Your task to perform on an android device: Open settings on Google Maps Image 0: 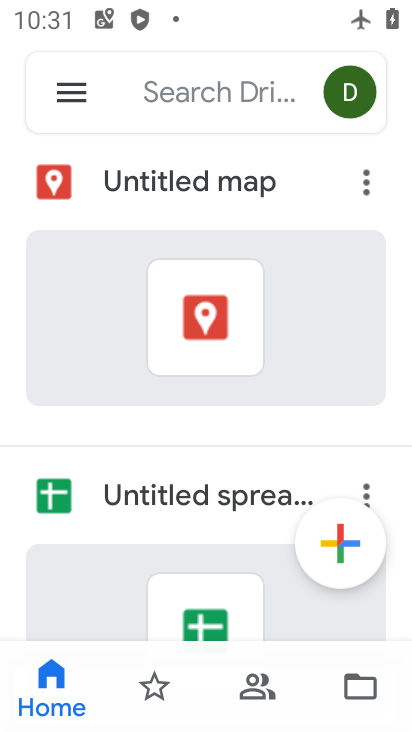
Step 0: press home button
Your task to perform on an android device: Open settings on Google Maps Image 1: 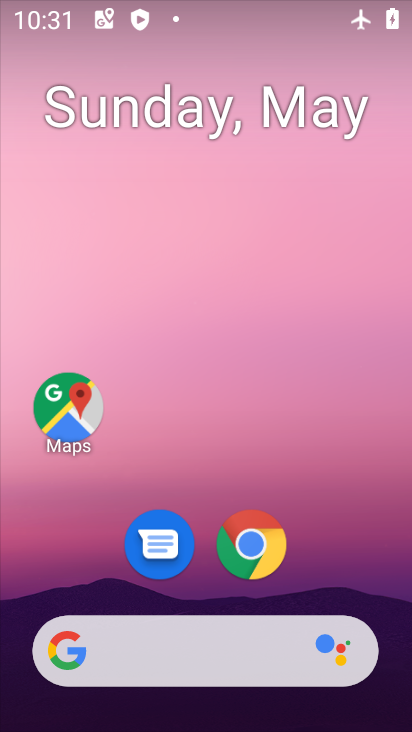
Step 1: click (52, 407)
Your task to perform on an android device: Open settings on Google Maps Image 2: 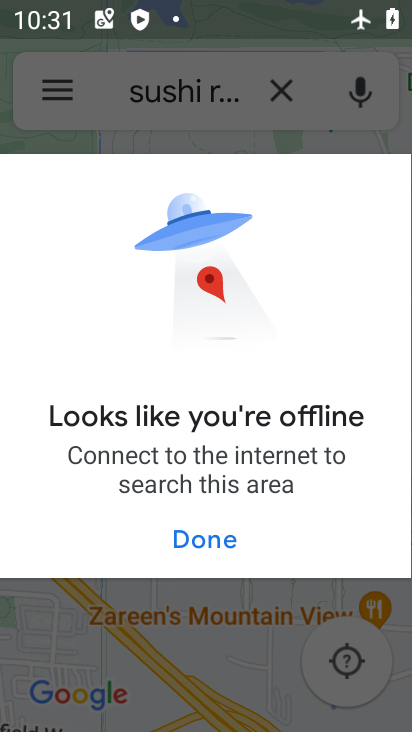
Step 2: click (213, 532)
Your task to perform on an android device: Open settings on Google Maps Image 3: 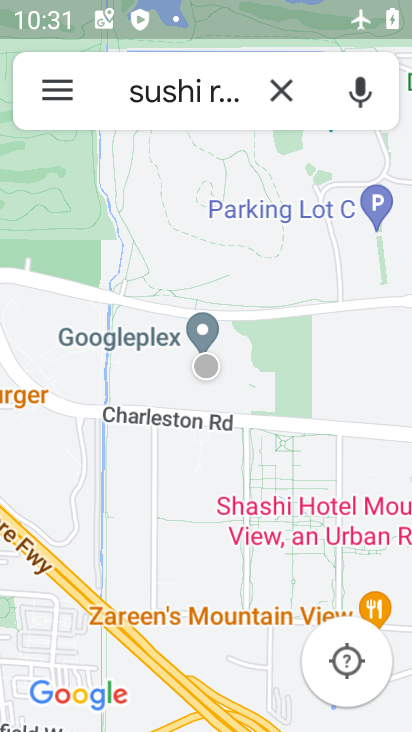
Step 3: click (59, 101)
Your task to perform on an android device: Open settings on Google Maps Image 4: 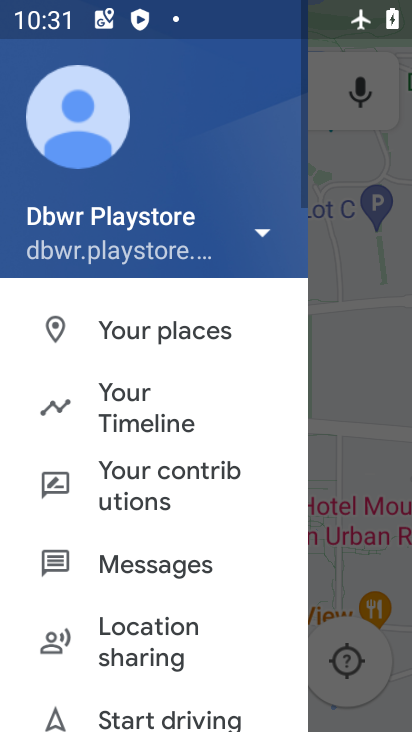
Step 4: drag from (138, 656) to (176, 306)
Your task to perform on an android device: Open settings on Google Maps Image 5: 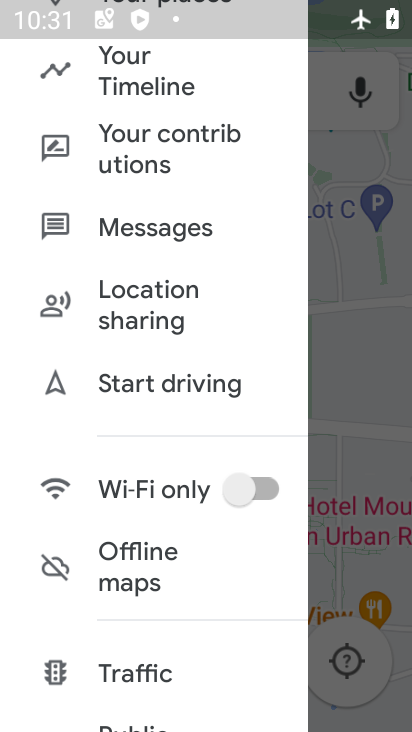
Step 5: drag from (152, 600) to (204, 106)
Your task to perform on an android device: Open settings on Google Maps Image 6: 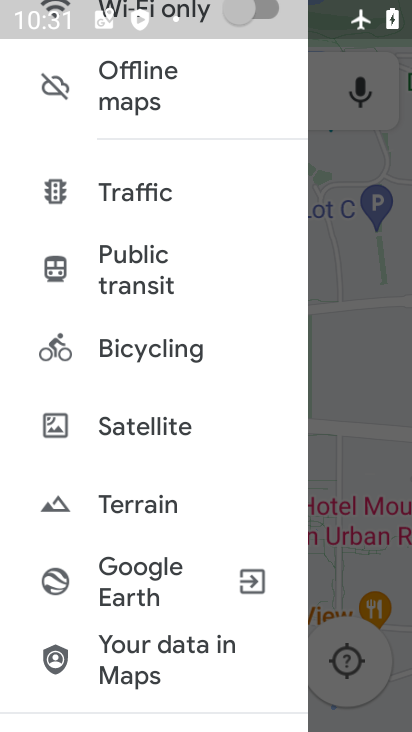
Step 6: drag from (162, 585) to (221, 152)
Your task to perform on an android device: Open settings on Google Maps Image 7: 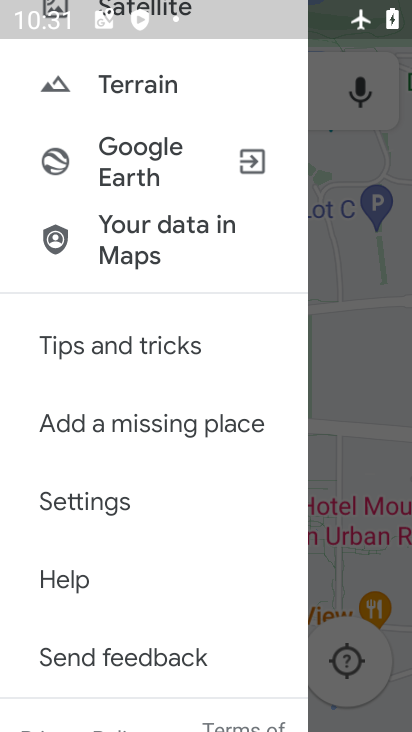
Step 7: click (129, 509)
Your task to perform on an android device: Open settings on Google Maps Image 8: 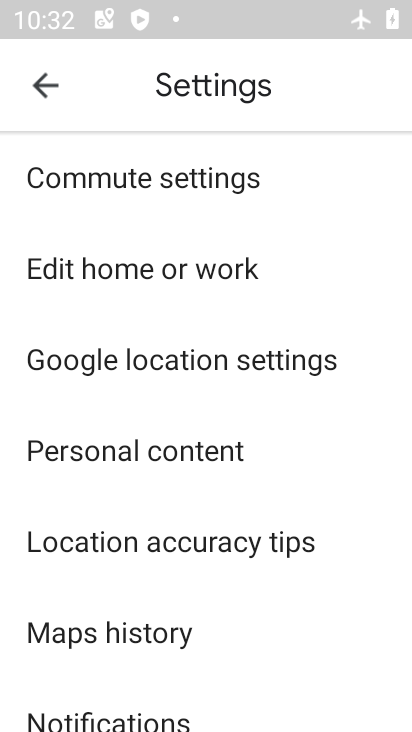
Step 8: task complete